Your task to perform on an android device: check out phone information Image 0: 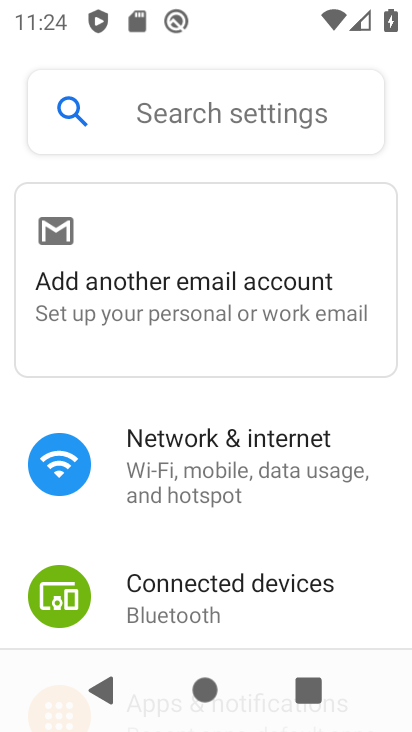
Step 0: press home button
Your task to perform on an android device: check out phone information Image 1: 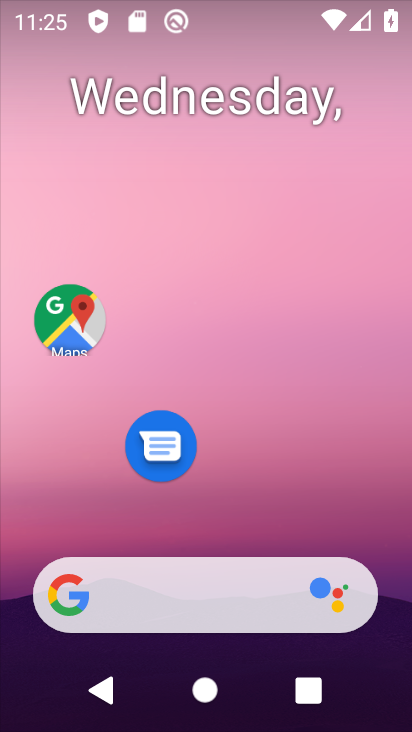
Step 1: drag from (225, 505) to (226, 137)
Your task to perform on an android device: check out phone information Image 2: 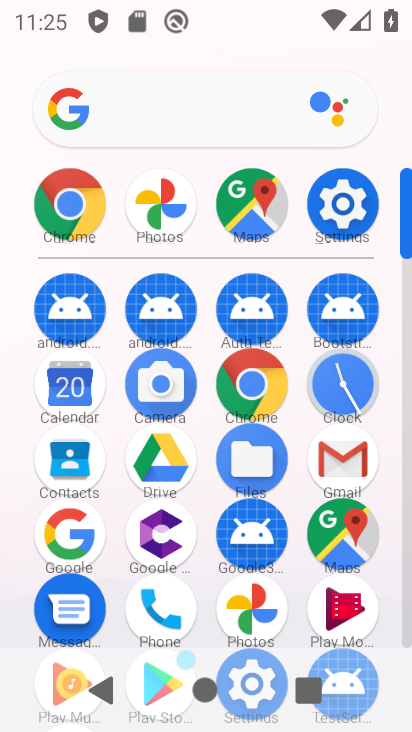
Step 2: click (151, 602)
Your task to perform on an android device: check out phone information Image 3: 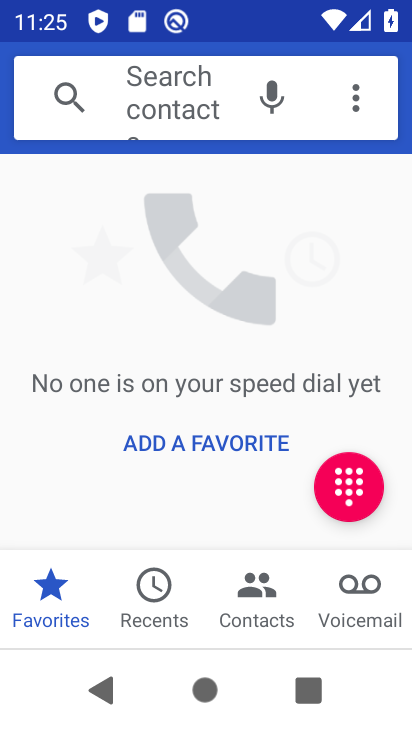
Step 3: click (355, 102)
Your task to perform on an android device: check out phone information Image 4: 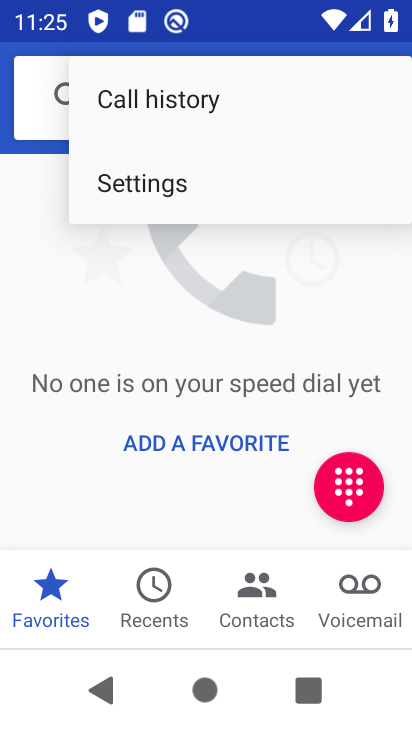
Step 4: click (152, 185)
Your task to perform on an android device: check out phone information Image 5: 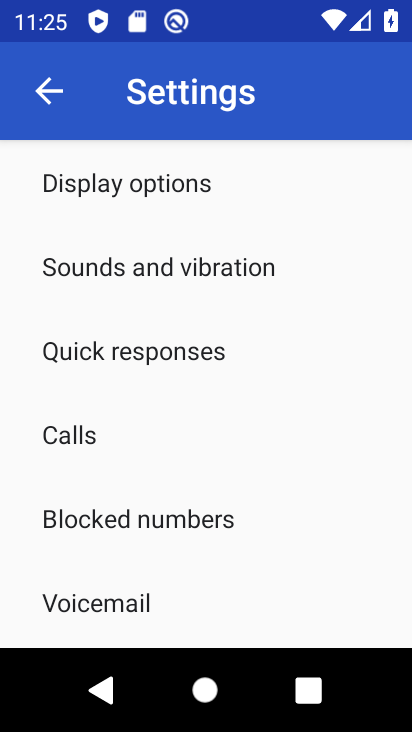
Step 5: drag from (155, 547) to (178, 237)
Your task to perform on an android device: check out phone information Image 6: 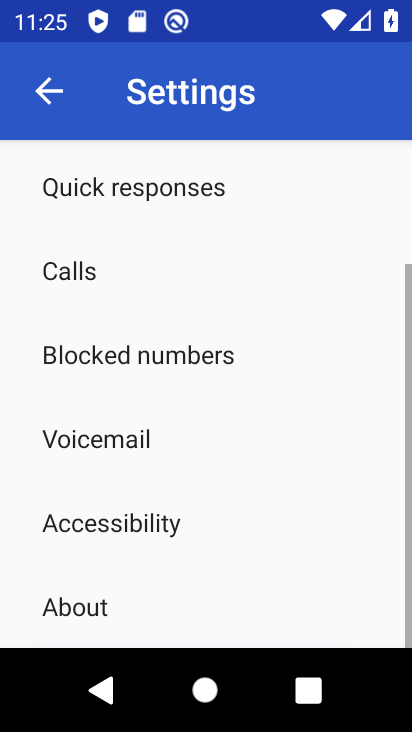
Step 6: click (80, 611)
Your task to perform on an android device: check out phone information Image 7: 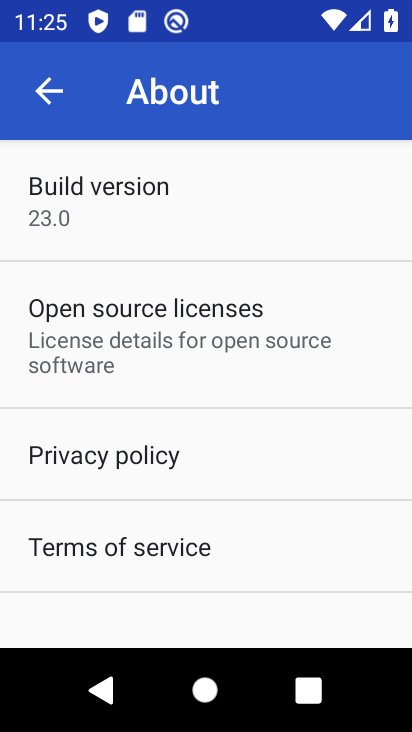
Step 7: task complete